Your task to perform on an android device: Go to CNN.com Image 0: 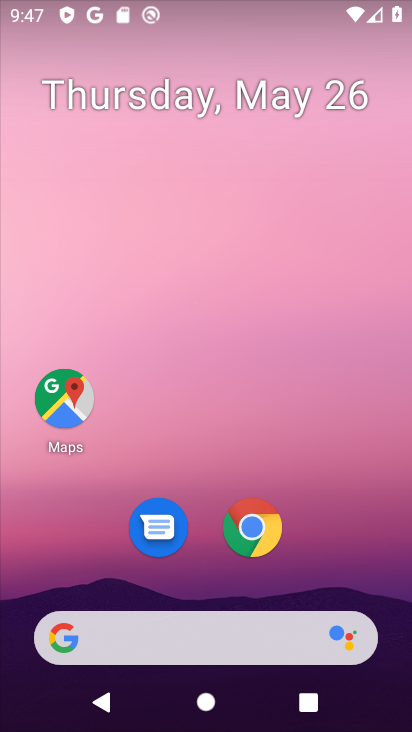
Step 0: click (271, 541)
Your task to perform on an android device: Go to CNN.com Image 1: 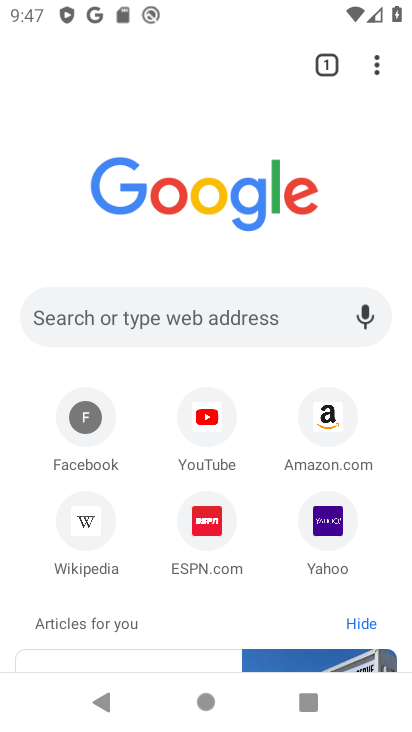
Step 1: click (226, 325)
Your task to perform on an android device: Go to CNN.com Image 2: 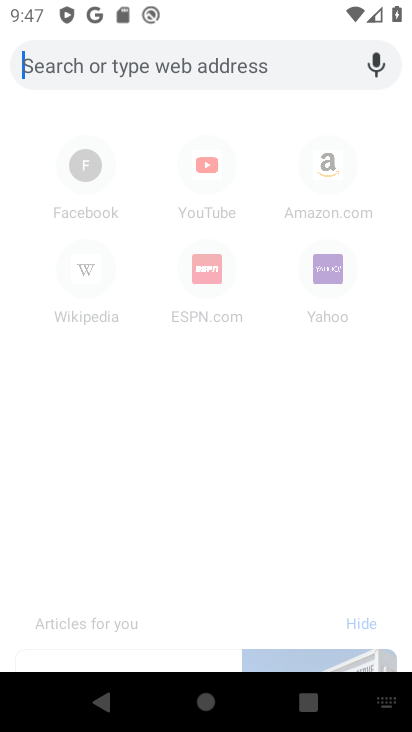
Step 2: type "cnn.com"
Your task to perform on an android device: Go to CNN.com Image 3: 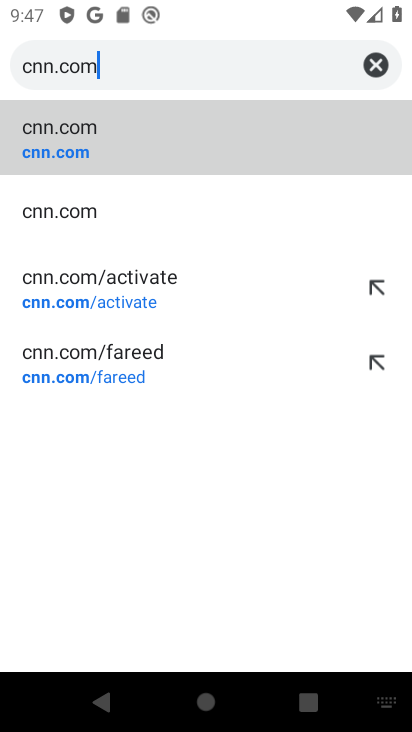
Step 3: click (211, 139)
Your task to perform on an android device: Go to CNN.com Image 4: 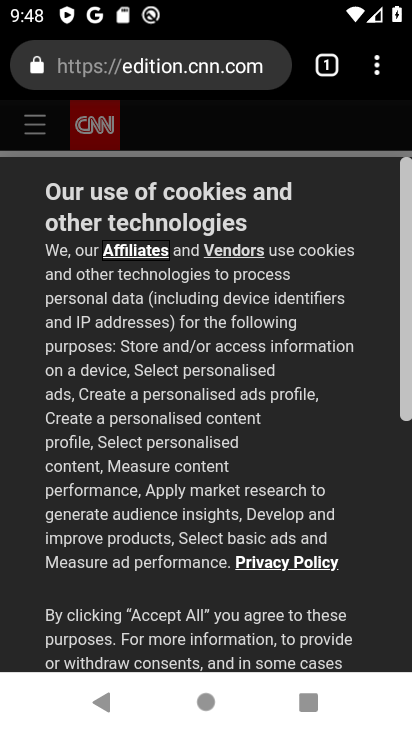
Step 4: task complete